Your task to perform on an android device: Search for top rated burger restaurants on Maps Image 0: 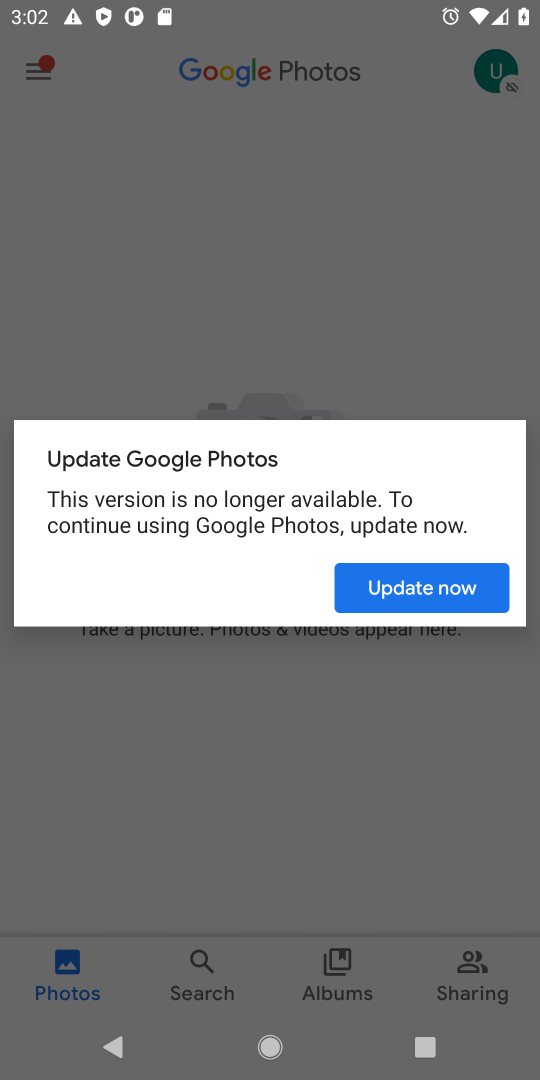
Step 0: press home button
Your task to perform on an android device: Search for top rated burger restaurants on Maps Image 1: 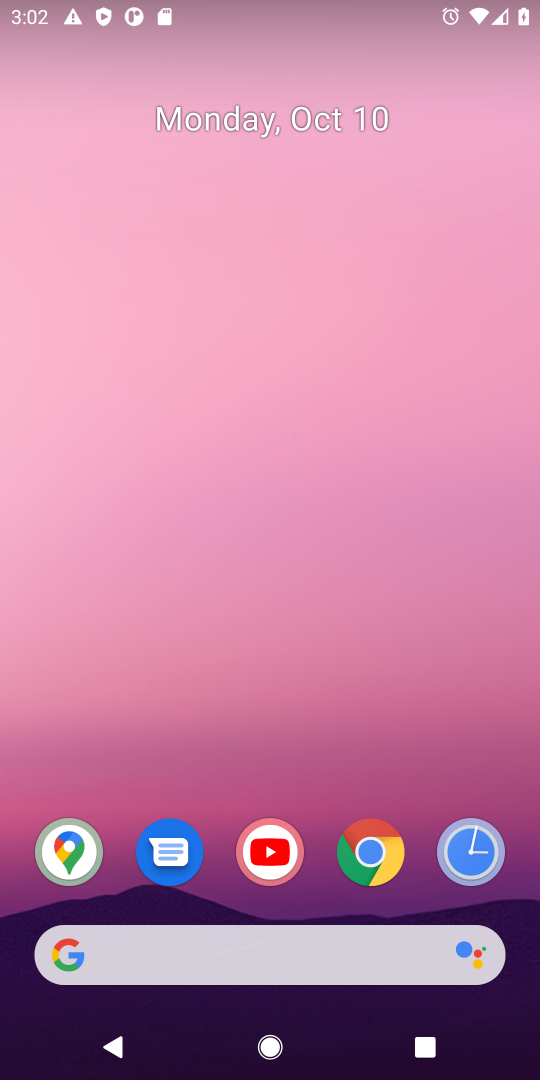
Step 1: click (68, 845)
Your task to perform on an android device: Search for top rated burger restaurants on Maps Image 2: 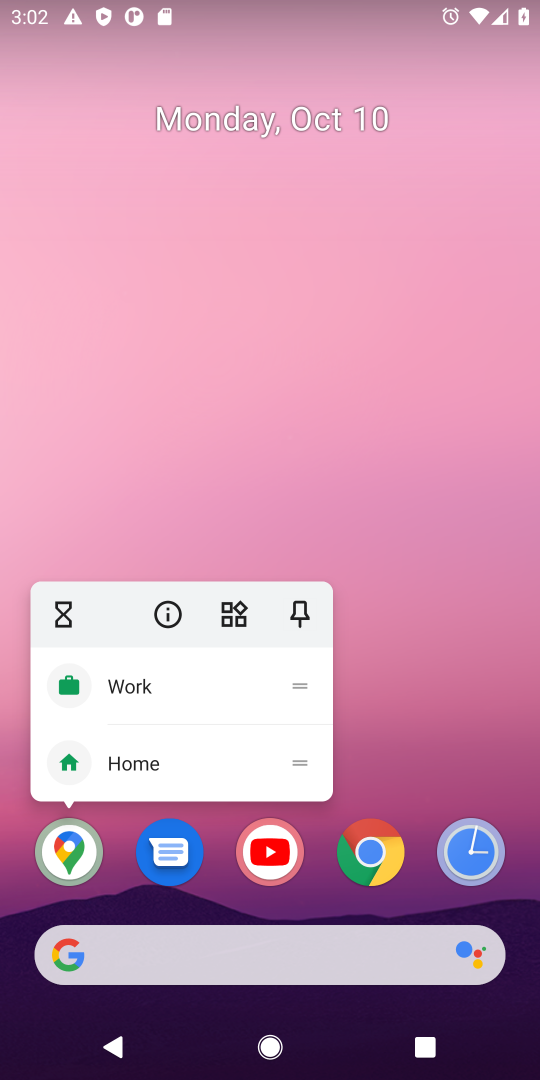
Step 2: click (68, 845)
Your task to perform on an android device: Search for top rated burger restaurants on Maps Image 3: 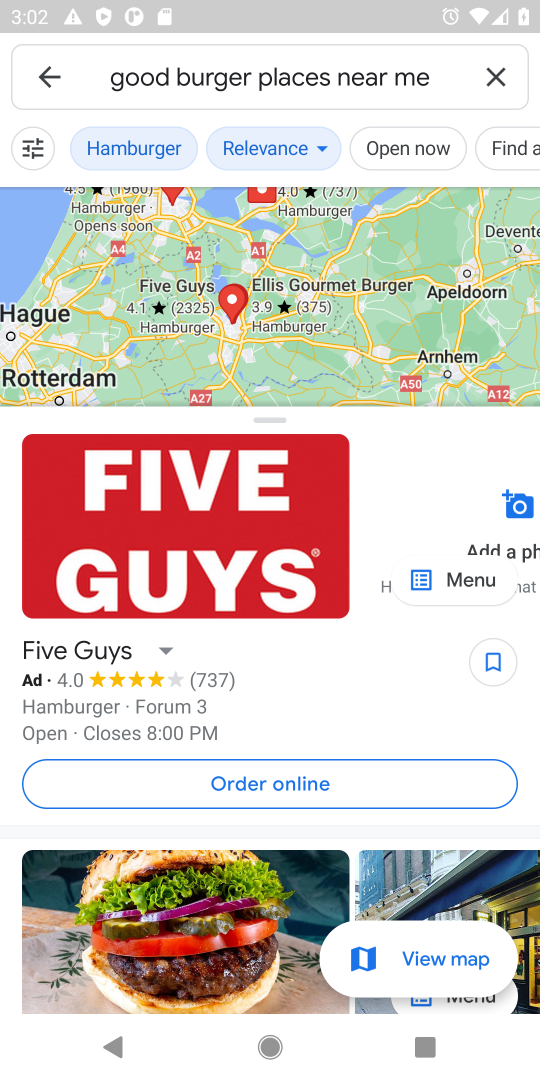
Step 3: click (491, 65)
Your task to perform on an android device: Search for top rated burger restaurants on Maps Image 4: 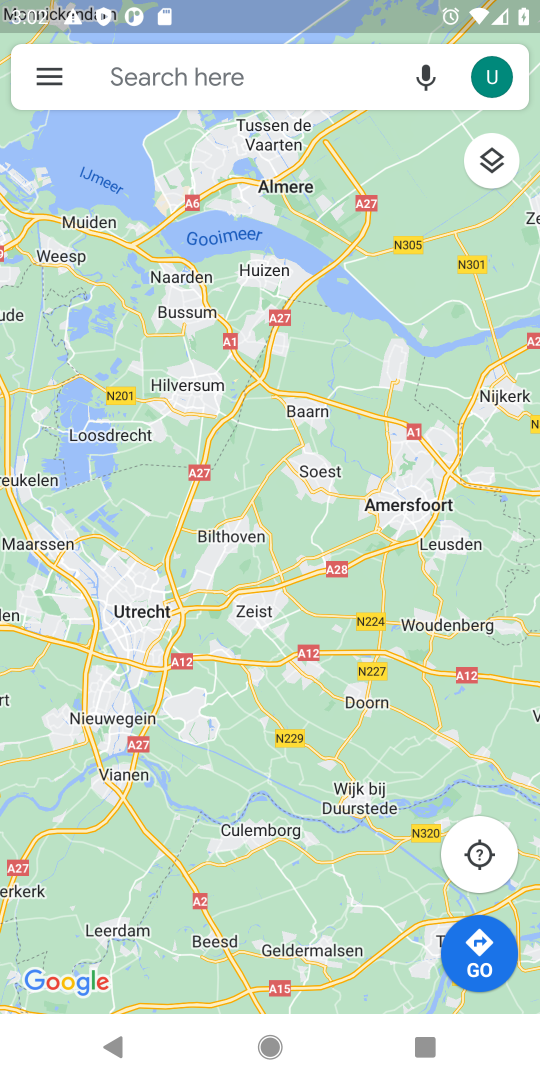
Step 4: type "top rated burger restaurants"
Your task to perform on an android device: Search for top rated burger restaurants on Maps Image 5: 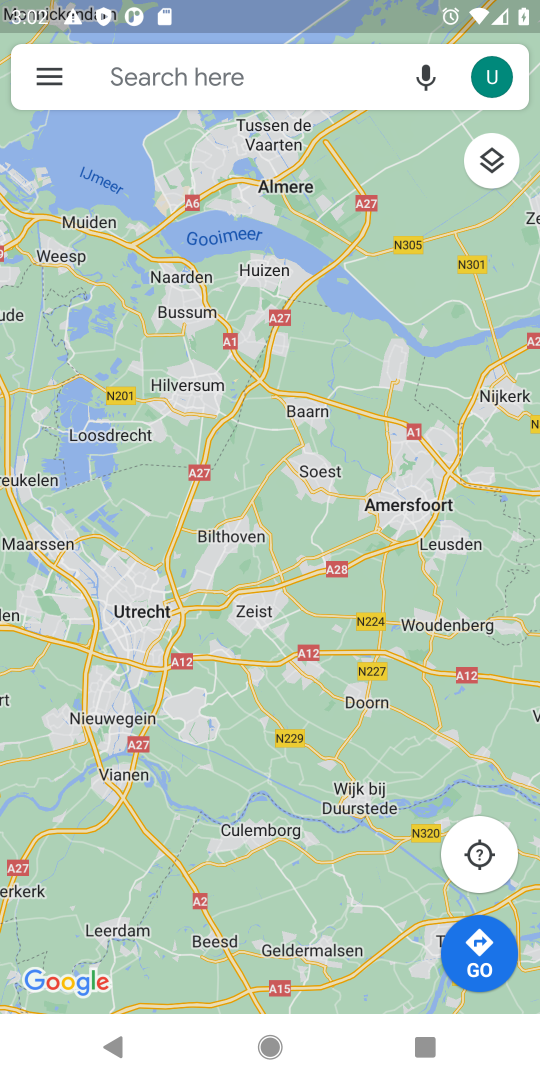
Step 5: type ""
Your task to perform on an android device: Search for top rated burger restaurants on Maps Image 6: 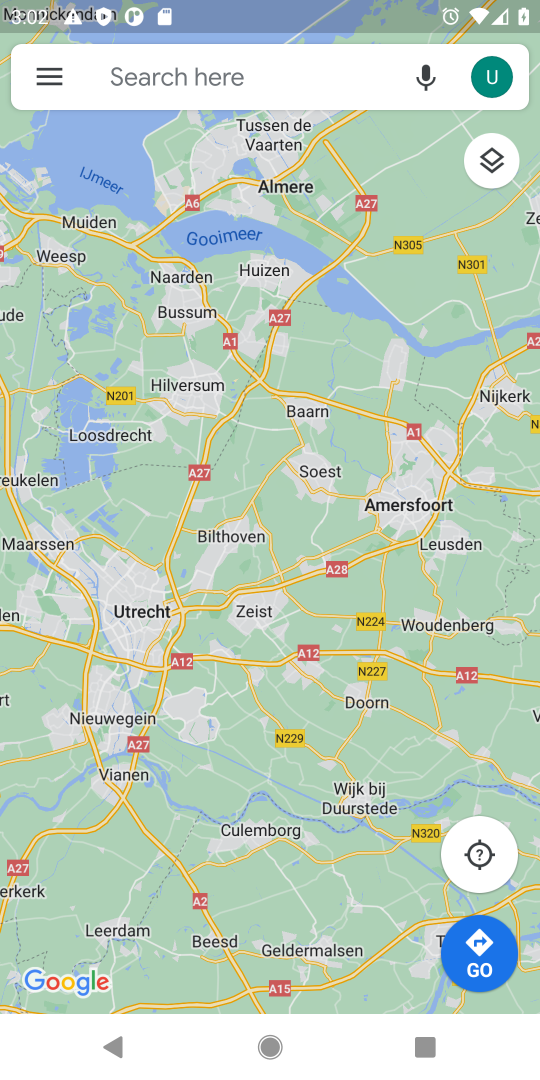
Step 6: click (231, 75)
Your task to perform on an android device: Search for top rated burger restaurants on Maps Image 7: 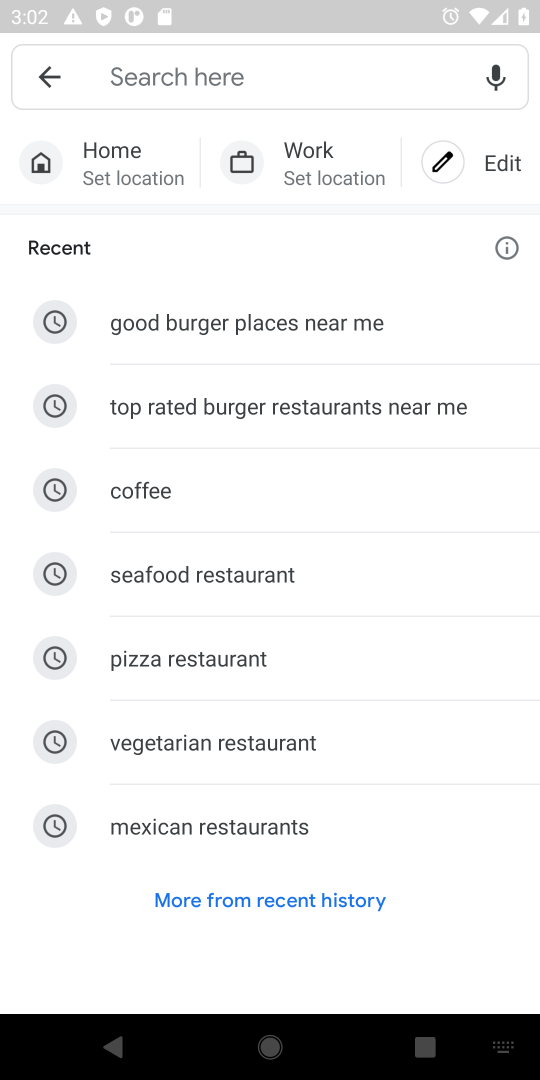
Step 7: click (406, 409)
Your task to perform on an android device: Search for top rated burger restaurants on Maps Image 8: 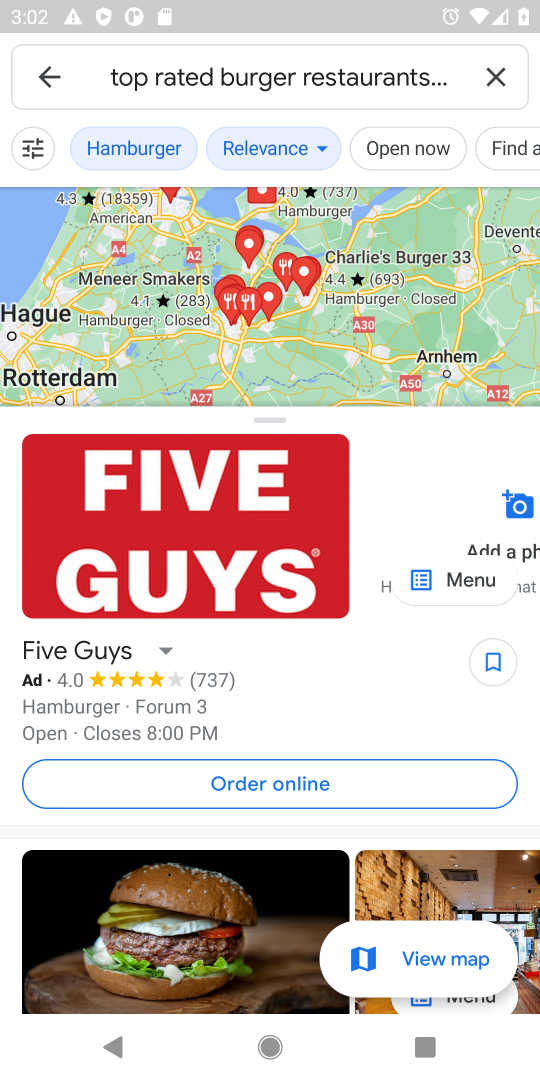
Step 8: task complete